Your task to perform on an android device: What's on the menu at Cheesecake Factory? Image 0: 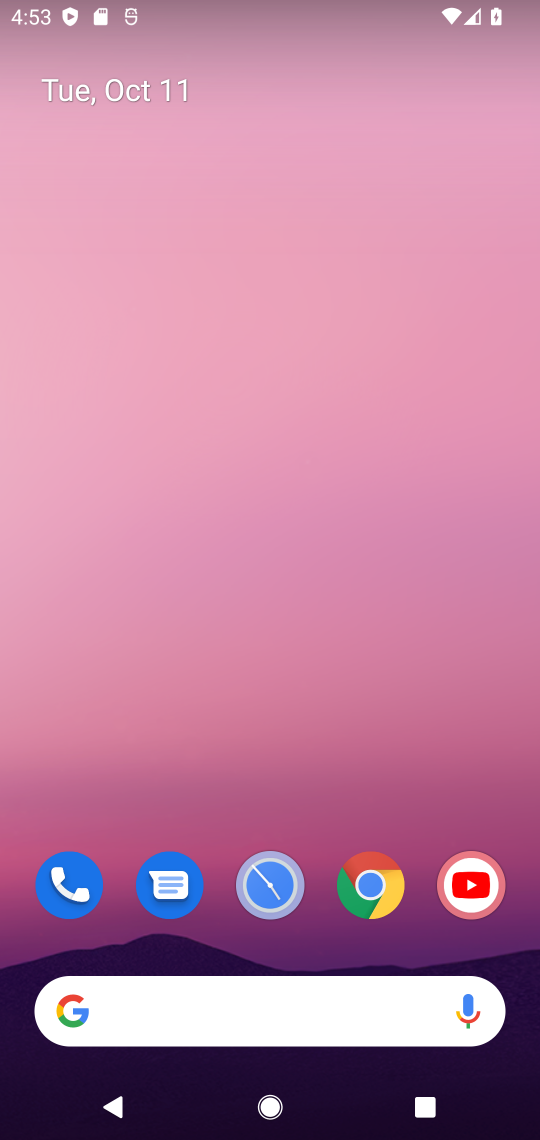
Step 0: click (358, 878)
Your task to perform on an android device: What's on the menu at Cheesecake Factory? Image 1: 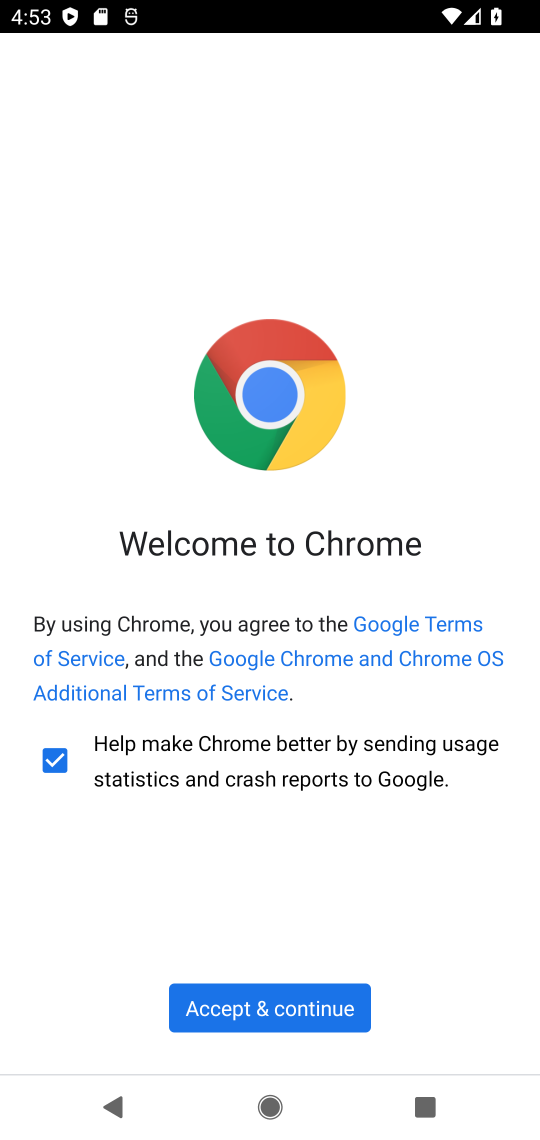
Step 1: click (301, 1018)
Your task to perform on an android device: What's on the menu at Cheesecake Factory? Image 2: 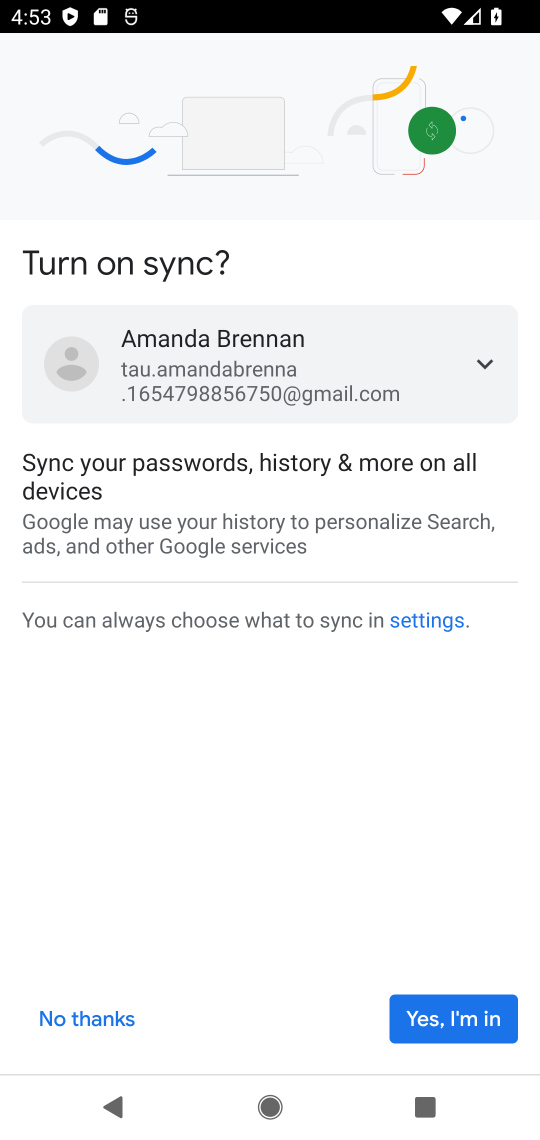
Step 2: click (464, 1026)
Your task to perform on an android device: What's on the menu at Cheesecake Factory? Image 3: 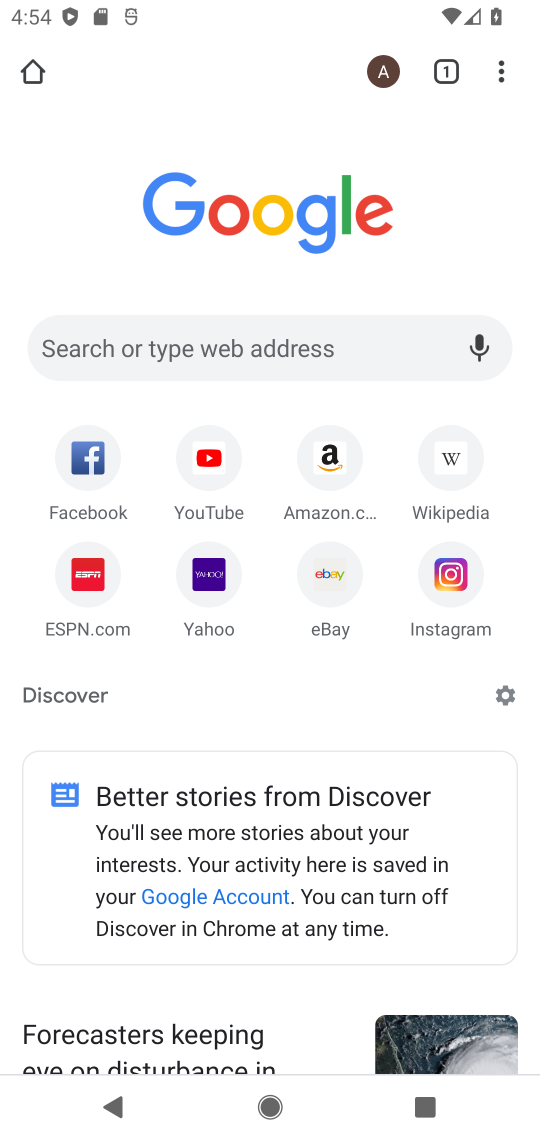
Step 3: click (257, 341)
Your task to perform on an android device: What's on the menu at Cheesecake Factory? Image 4: 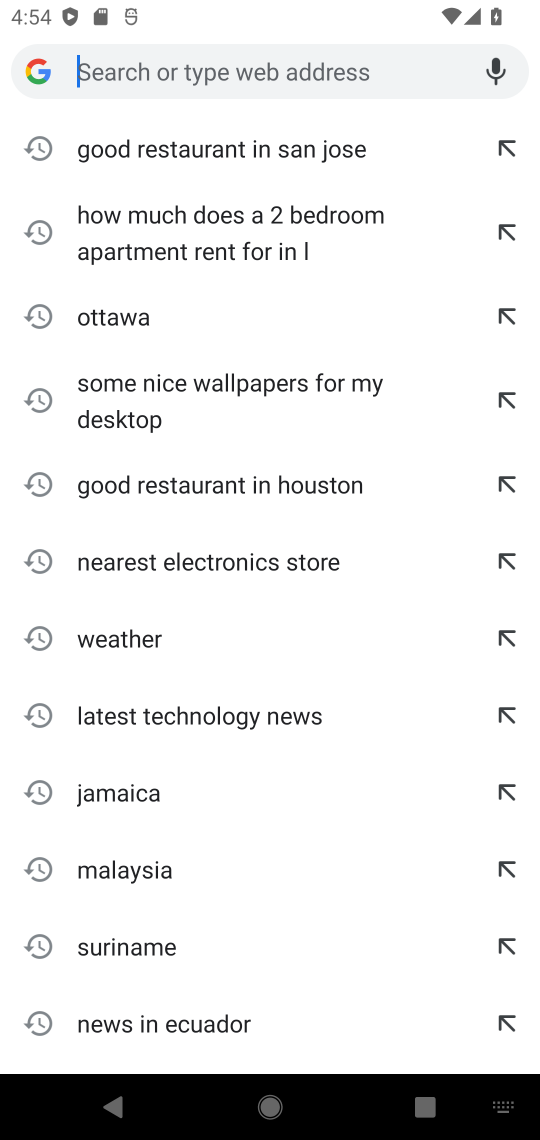
Step 4: type "cheescake factory menu"
Your task to perform on an android device: What's on the menu at Cheesecake Factory? Image 5: 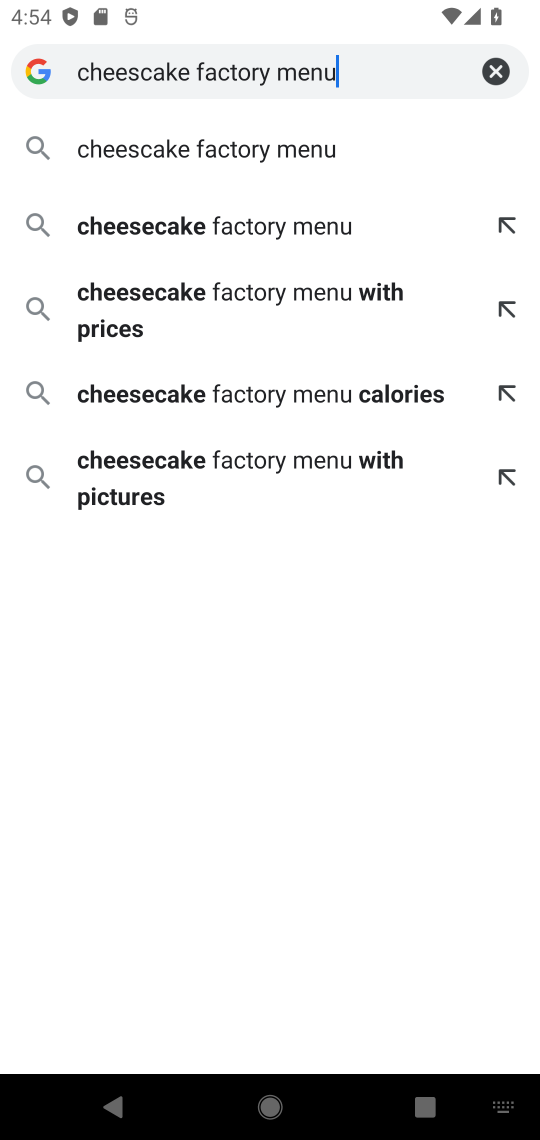
Step 5: click (189, 162)
Your task to perform on an android device: What's on the menu at Cheesecake Factory? Image 6: 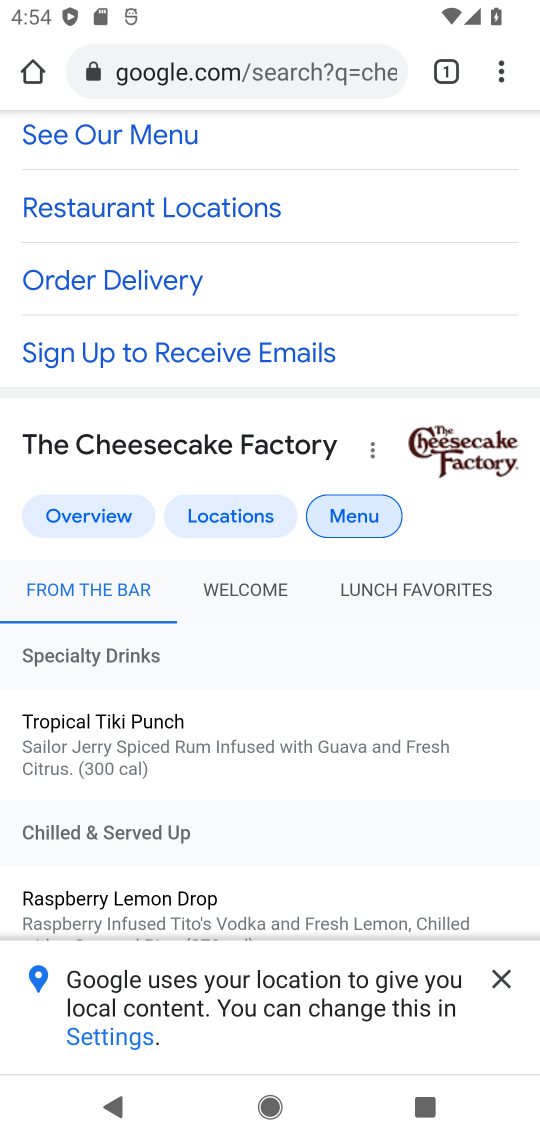
Step 6: drag from (427, 752) to (412, 318)
Your task to perform on an android device: What's on the menu at Cheesecake Factory? Image 7: 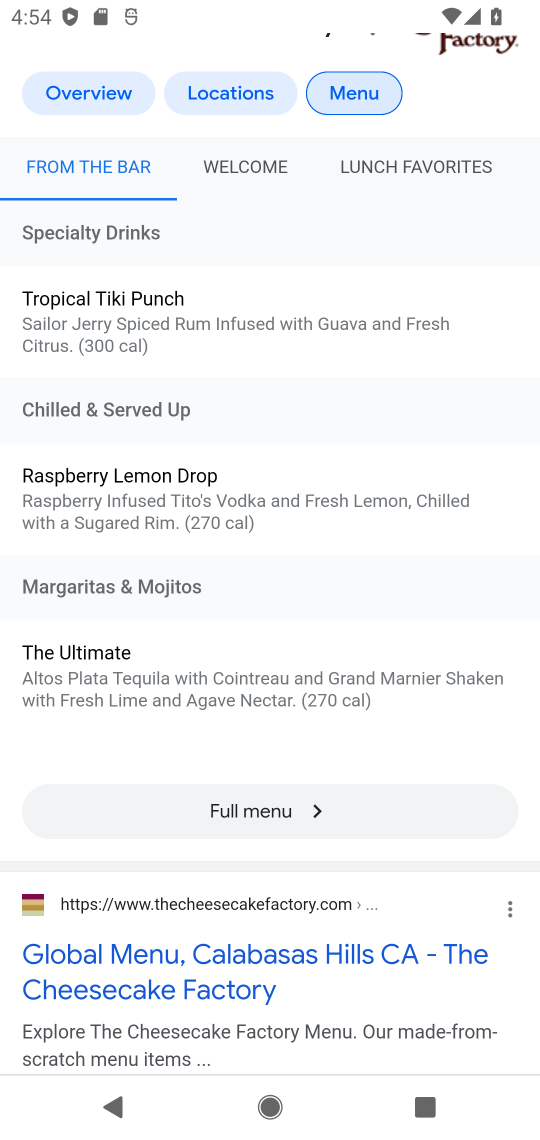
Step 7: click (315, 806)
Your task to perform on an android device: What's on the menu at Cheesecake Factory? Image 8: 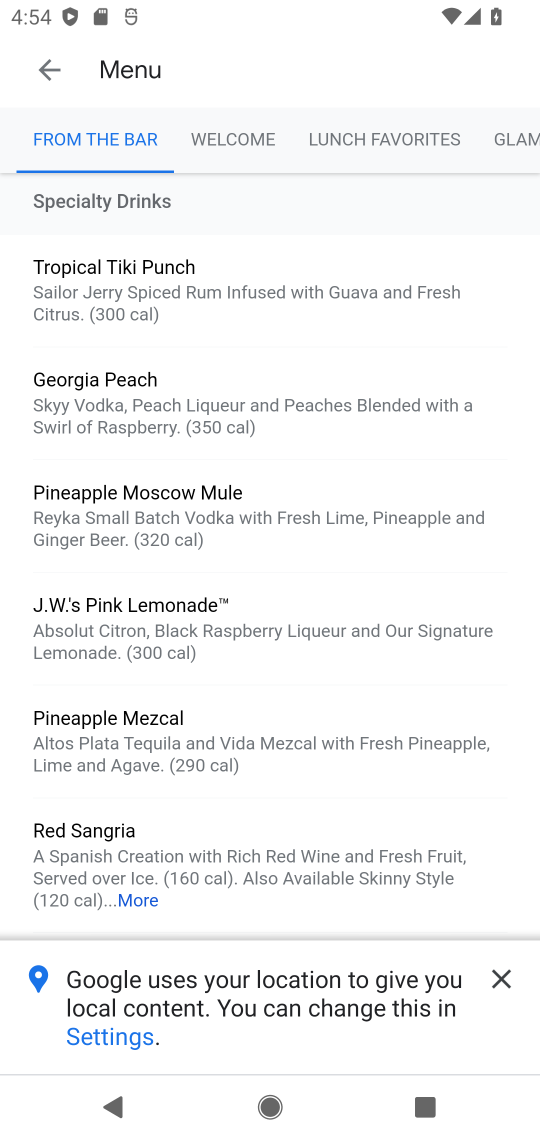
Step 8: task complete